Your task to perform on an android device: uninstall "LinkedIn" Image 0: 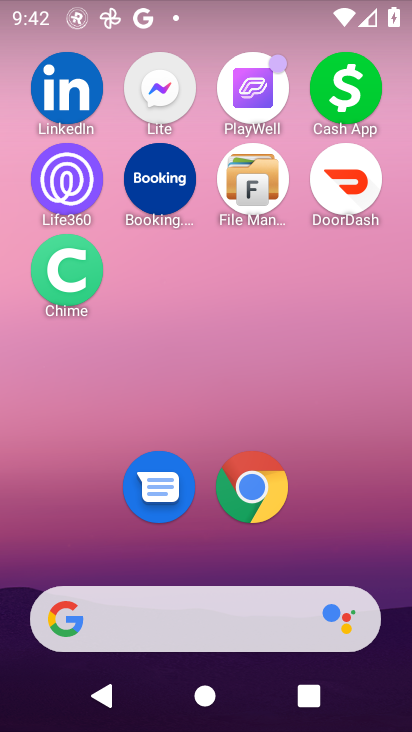
Step 0: drag from (284, 680) to (256, 300)
Your task to perform on an android device: uninstall "LinkedIn" Image 1: 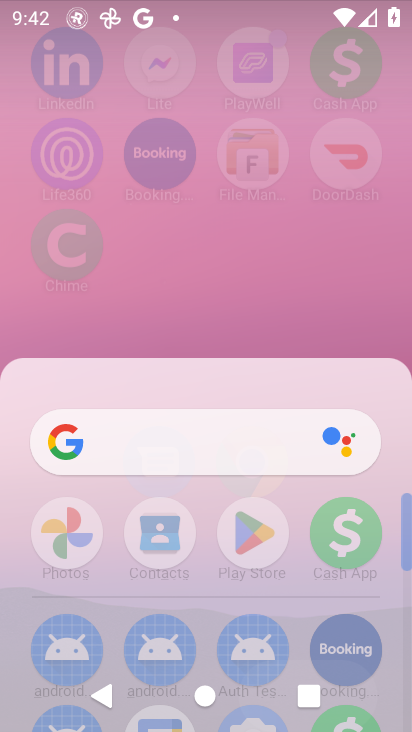
Step 1: drag from (226, 641) to (226, 201)
Your task to perform on an android device: uninstall "LinkedIn" Image 2: 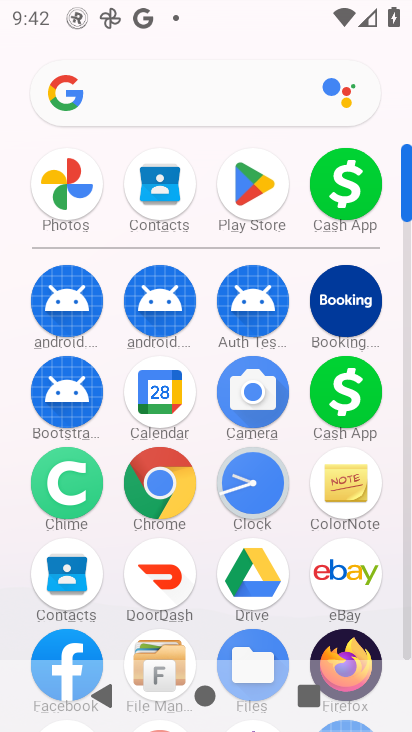
Step 2: click (255, 185)
Your task to perform on an android device: uninstall "LinkedIn" Image 3: 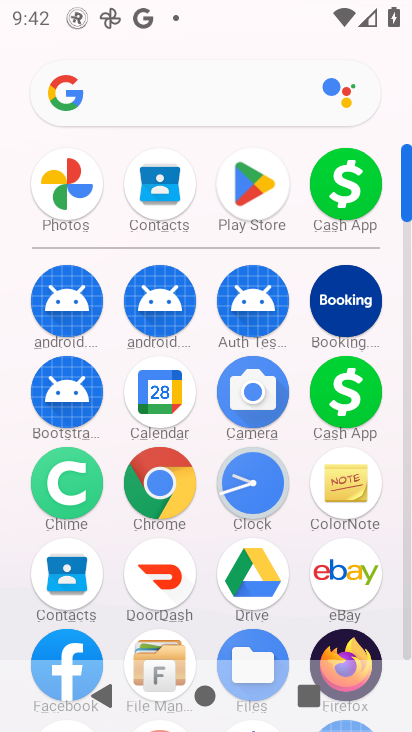
Step 3: click (254, 183)
Your task to perform on an android device: uninstall "LinkedIn" Image 4: 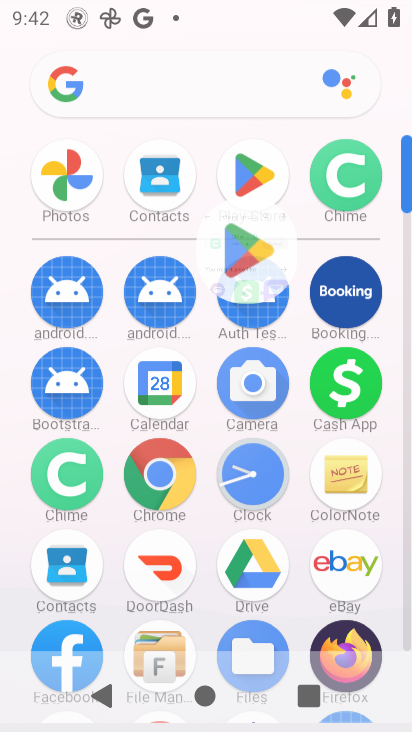
Step 4: click (255, 182)
Your task to perform on an android device: uninstall "LinkedIn" Image 5: 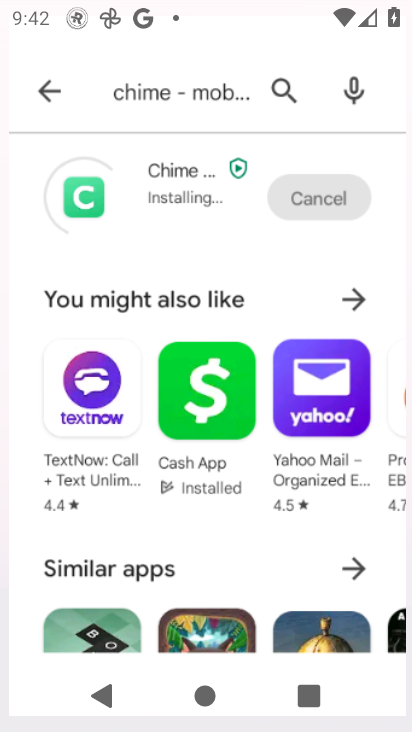
Step 5: click (255, 182)
Your task to perform on an android device: uninstall "LinkedIn" Image 6: 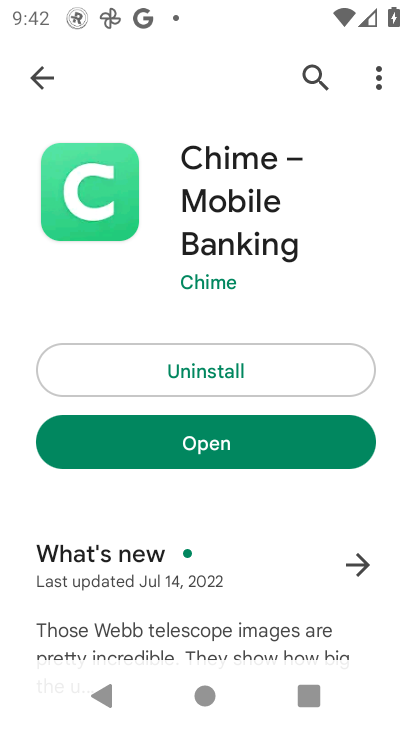
Step 6: click (18, 68)
Your task to perform on an android device: uninstall "LinkedIn" Image 7: 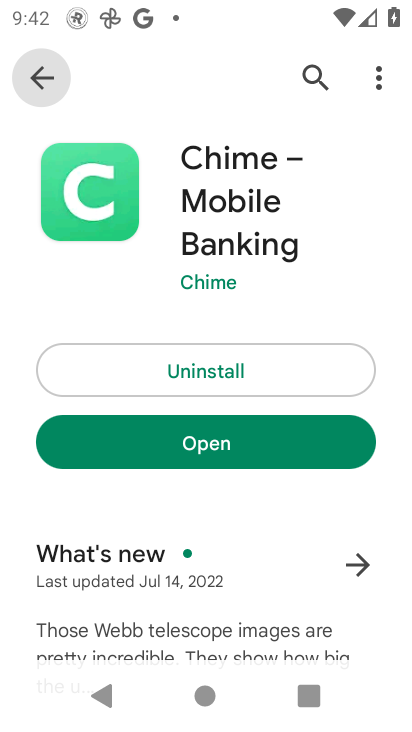
Step 7: click (19, 68)
Your task to perform on an android device: uninstall "LinkedIn" Image 8: 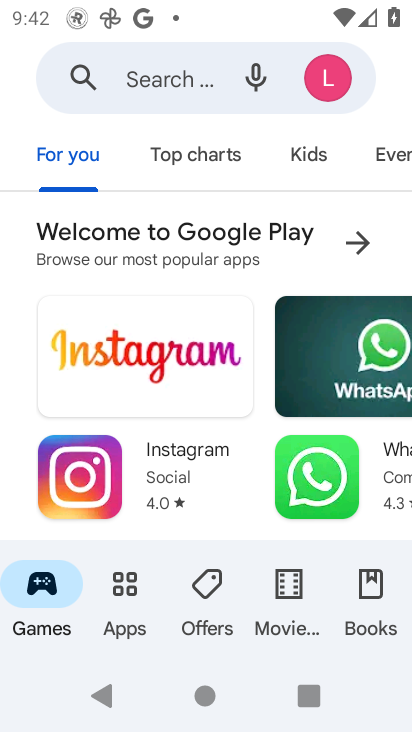
Step 8: click (134, 83)
Your task to perform on an android device: uninstall "LinkedIn" Image 9: 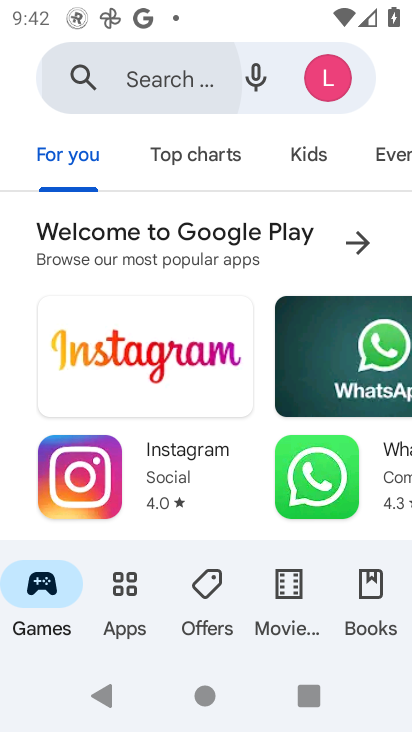
Step 9: click (137, 86)
Your task to perform on an android device: uninstall "LinkedIn" Image 10: 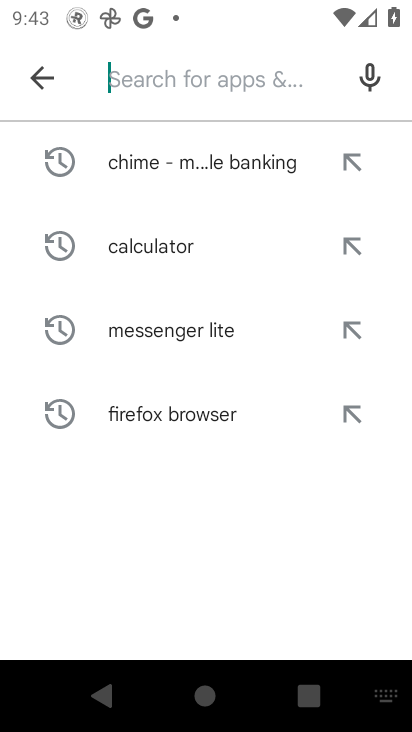
Step 10: type "Linkdin"
Your task to perform on an android device: uninstall "LinkedIn" Image 11: 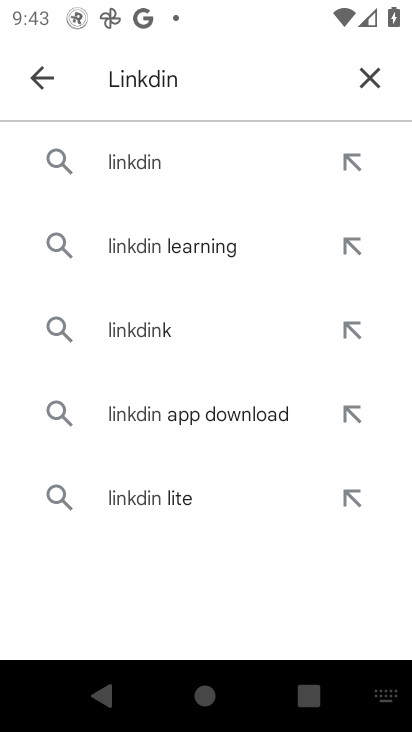
Step 11: click (135, 148)
Your task to perform on an android device: uninstall "LinkedIn" Image 12: 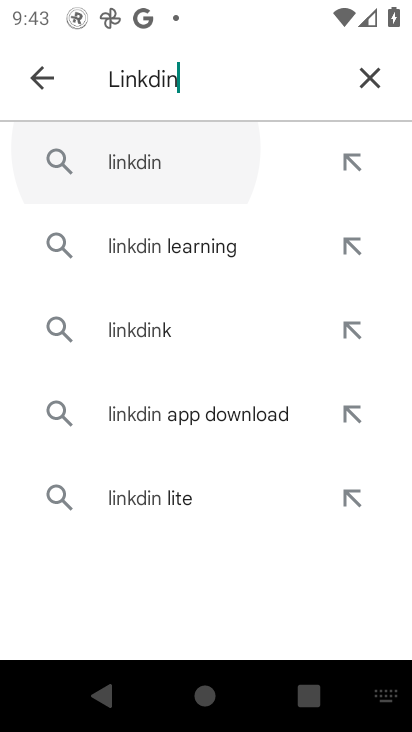
Step 12: click (135, 148)
Your task to perform on an android device: uninstall "LinkedIn" Image 13: 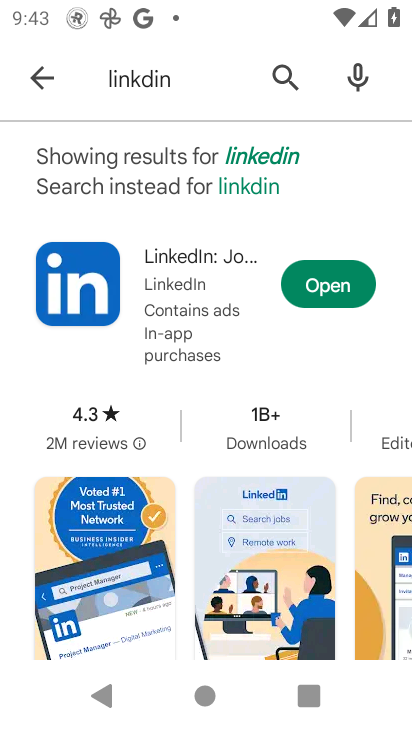
Step 13: task complete